Your task to perform on an android device: Open calendar and show me the second week of next month Image 0: 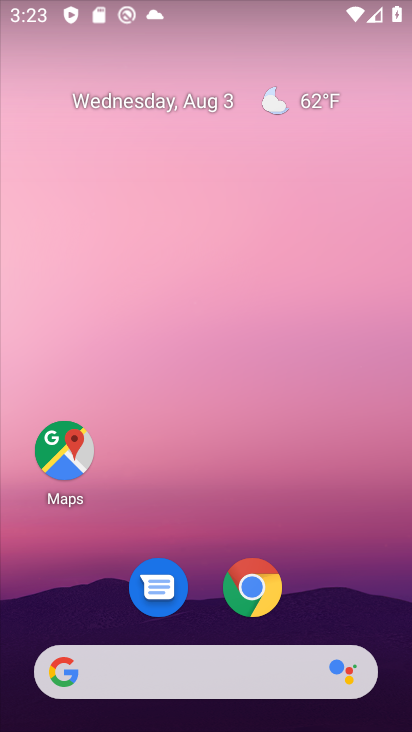
Step 0: drag from (53, 616) to (228, 201)
Your task to perform on an android device: Open calendar and show me the second week of next month Image 1: 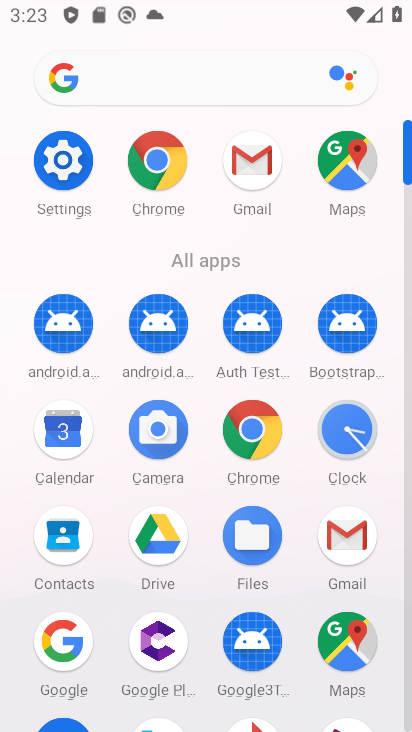
Step 1: click (52, 427)
Your task to perform on an android device: Open calendar and show me the second week of next month Image 2: 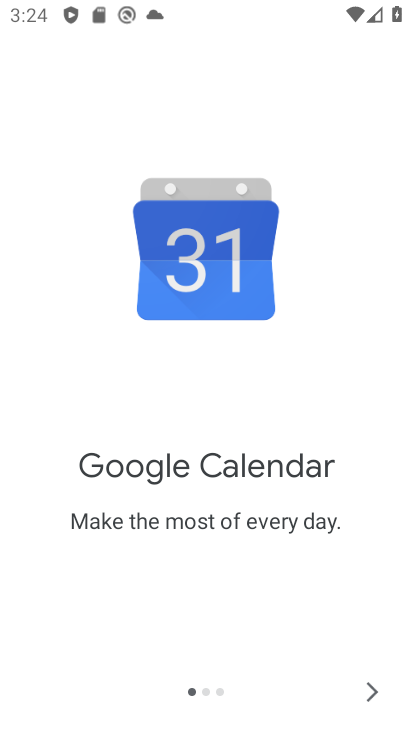
Step 2: click (381, 684)
Your task to perform on an android device: Open calendar and show me the second week of next month Image 3: 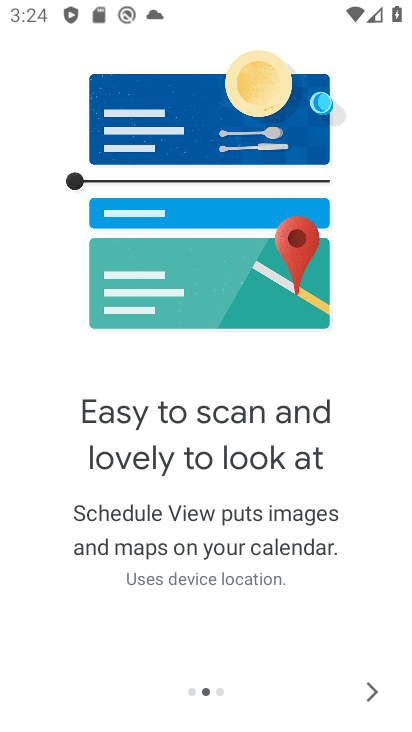
Step 3: click (372, 696)
Your task to perform on an android device: Open calendar and show me the second week of next month Image 4: 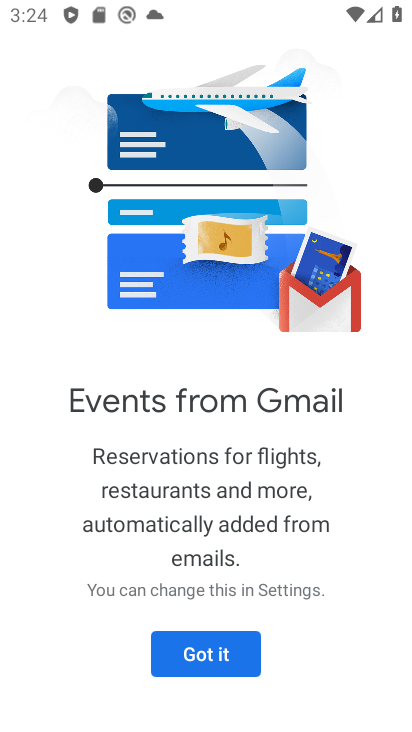
Step 4: click (203, 663)
Your task to perform on an android device: Open calendar and show me the second week of next month Image 5: 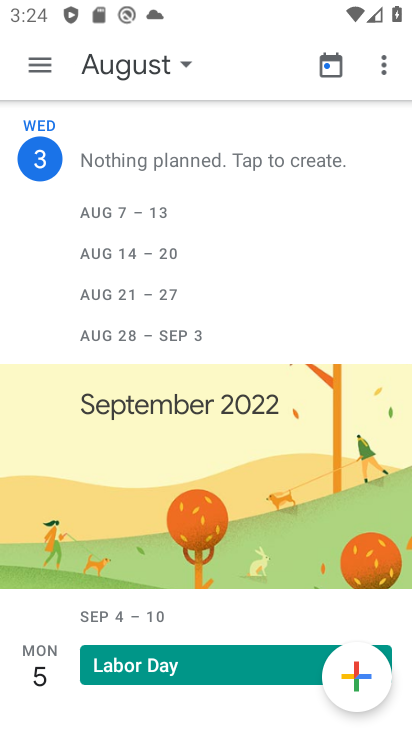
Step 5: click (122, 61)
Your task to perform on an android device: Open calendar and show me the second week of next month Image 6: 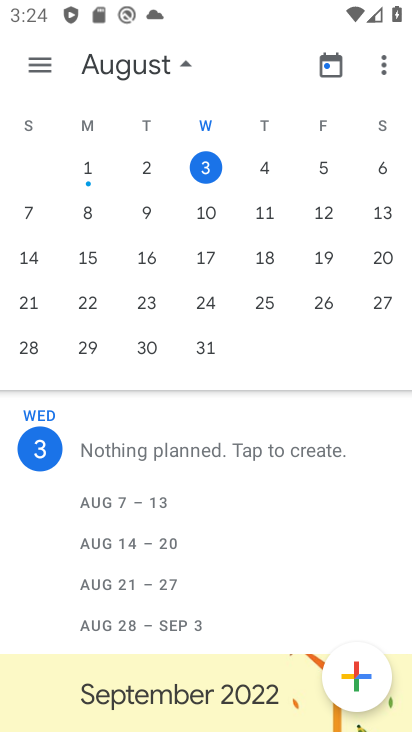
Step 6: drag from (16, 184) to (360, 241)
Your task to perform on an android device: Open calendar and show me the second week of next month Image 7: 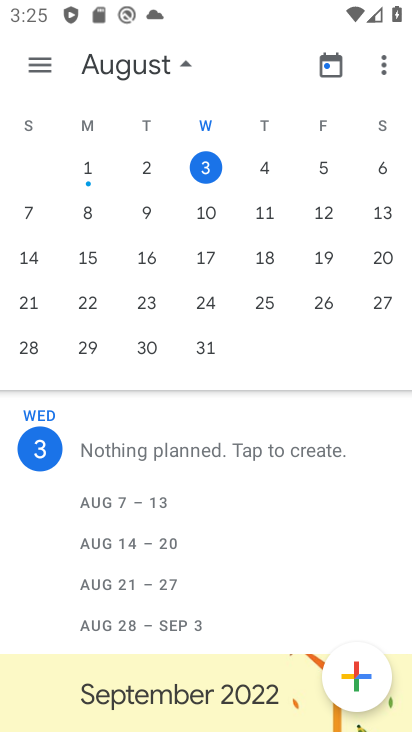
Step 7: drag from (23, 165) to (356, 165)
Your task to perform on an android device: Open calendar and show me the second week of next month Image 8: 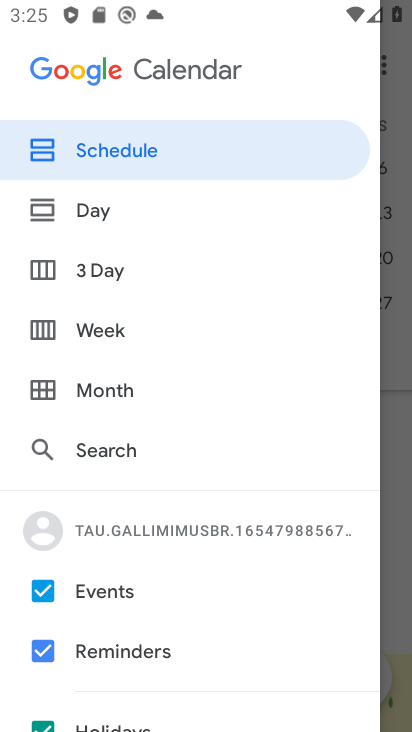
Step 8: click (401, 474)
Your task to perform on an android device: Open calendar and show me the second week of next month Image 9: 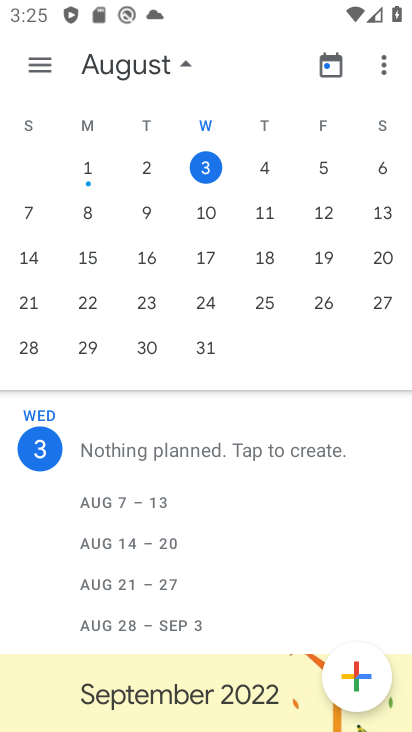
Step 9: drag from (23, 193) to (409, 283)
Your task to perform on an android device: Open calendar and show me the second week of next month Image 10: 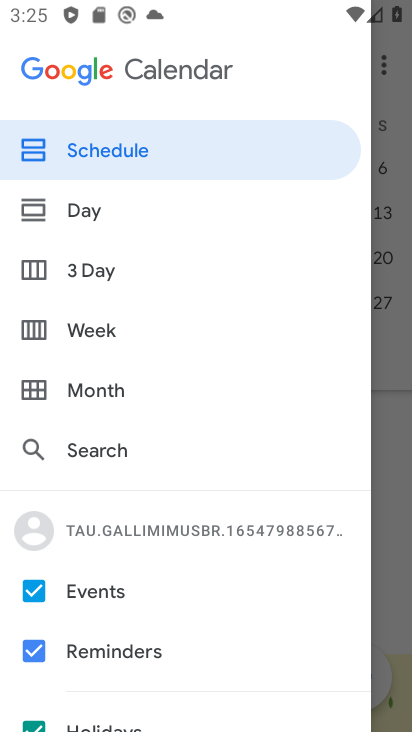
Step 10: click (367, 376)
Your task to perform on an android device: Open calendar and show me the second week of next month Image 11: 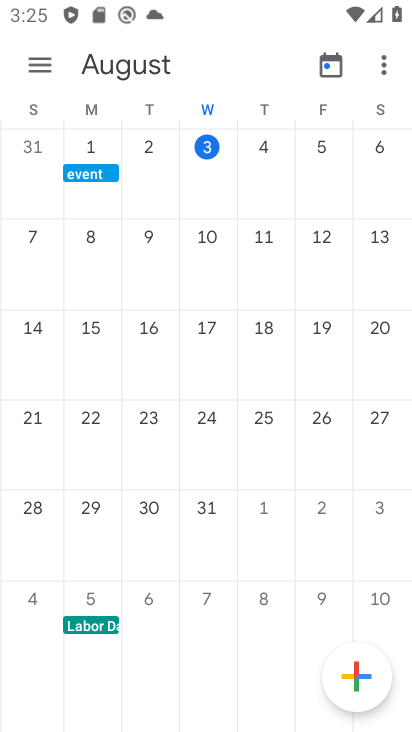
Step 11: task complete